Your task to perform on an android device: turn on the 12-hour format for clock Image 0: 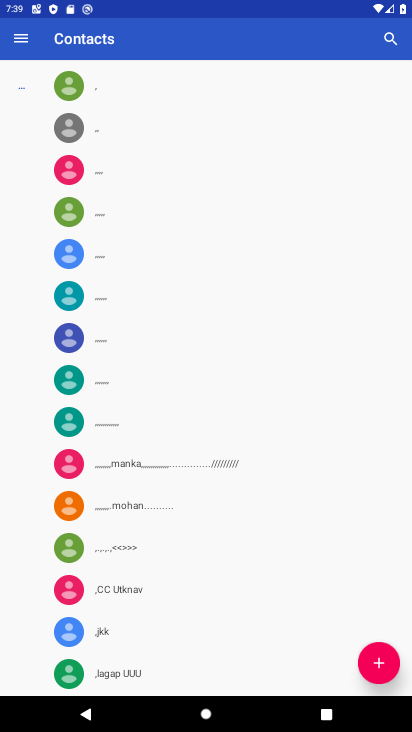
Step 0: drag from (156, 11) to (147, 527)
Your task to perform on an android device: turn on the 12-hour format for clock Image 1: 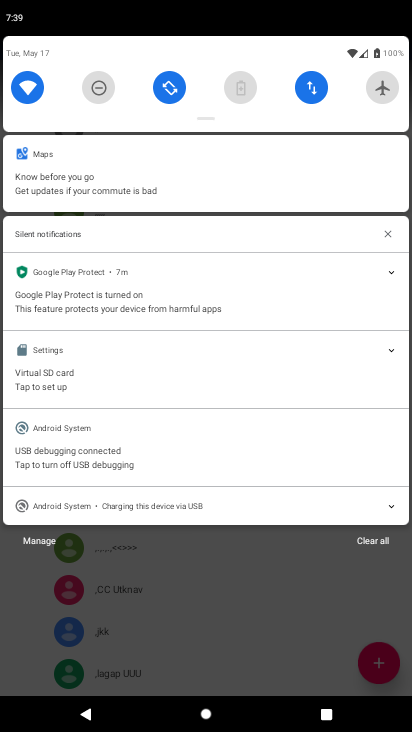
Step 1: press home button
Your task to perform on an android device: turn on the 12-hour format for clock Image 2: 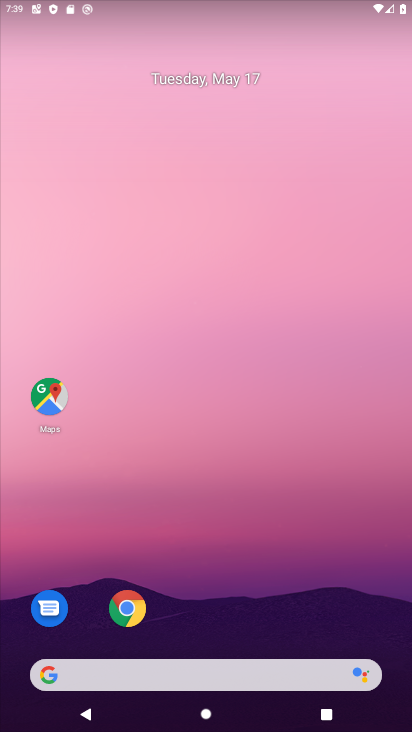
Step 2: drag from (248, 549) to (249, 111)
Your task to perform on an android device: turn on the 12-hour format for clock Image 3: 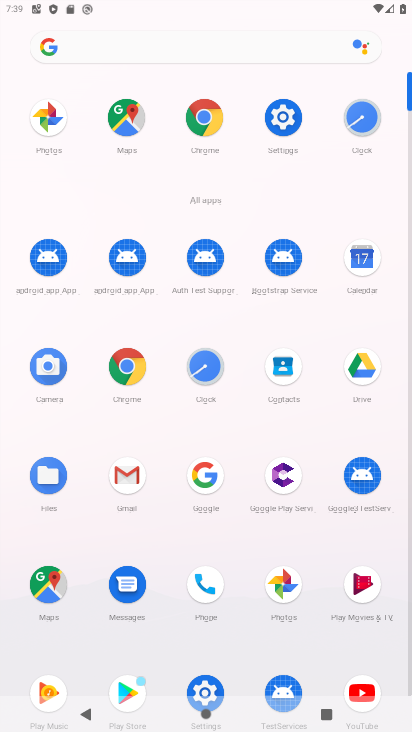
Step 3: click (198, 361)
Your task to perform on an android device: turn on the 12-hour format for clock Image 4: 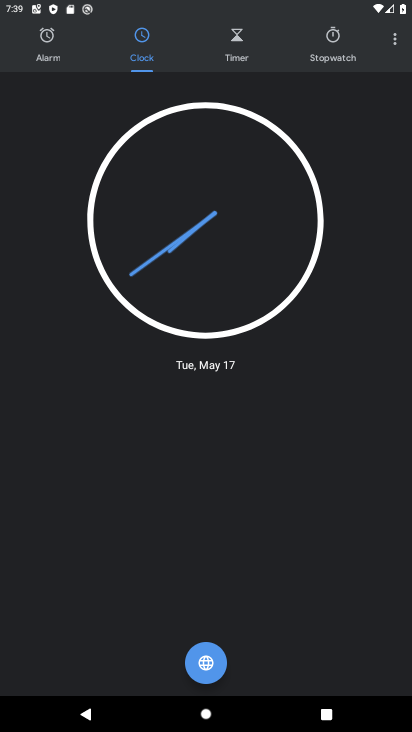
Step 4: click (393, 39)
Your task to perform on an android device: turn on the 12-hour format for clock Image 5: 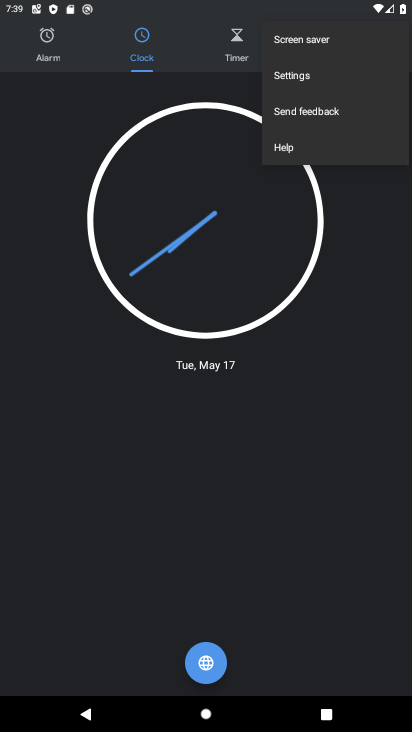
Step 5: click (297, 82)
Your task to perform on an android device: turn on the 12-hour format for clock Image 6: 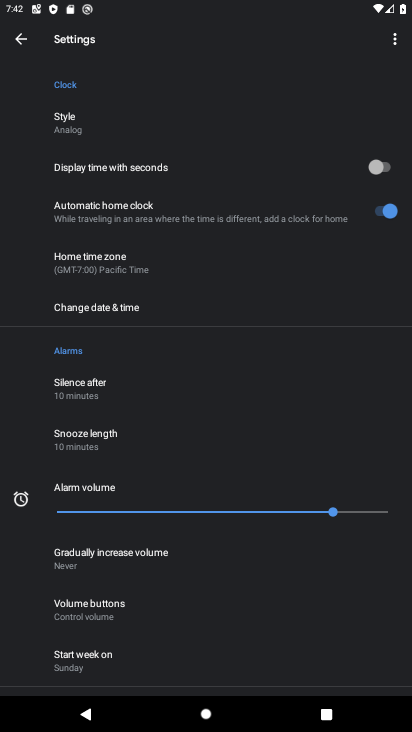
Step 6: task complete